Your task to perform on an android device: Go to CNN.com Image 0: 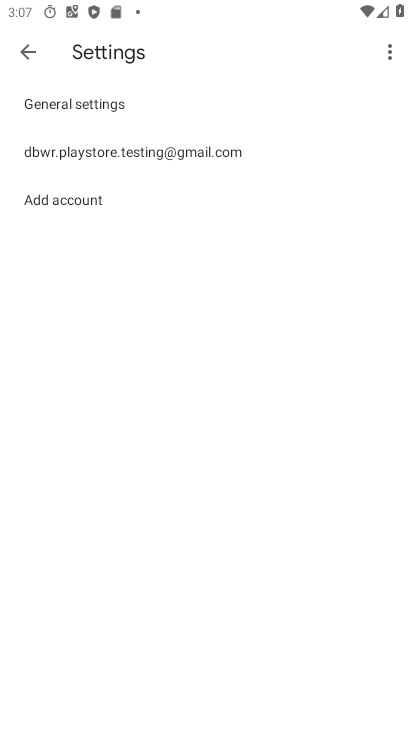
Step 0: press home button
Your task to perform on an android device: Go to CNN.com Image 1: 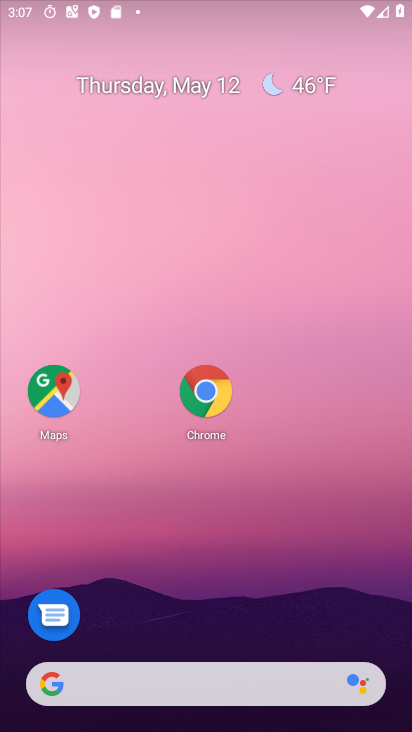
Step 1: drag from (198, 557) to (229, 31)
Your task to perform on an android device: Go to CNN.com Image 2: 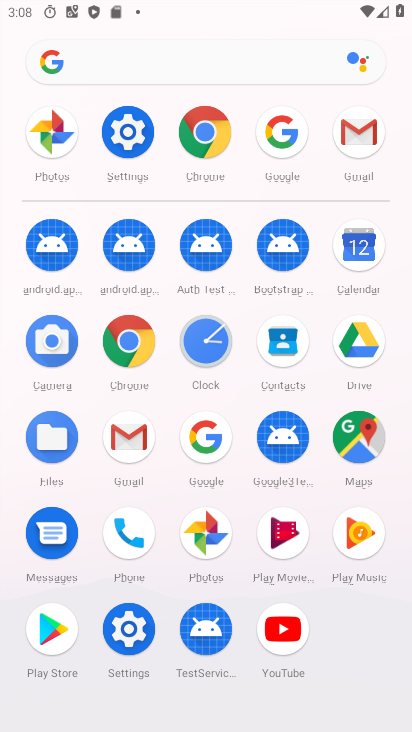
Step 2: click (209, 438)
Your task to perform on an android device: Go to CNN.com Image 3: 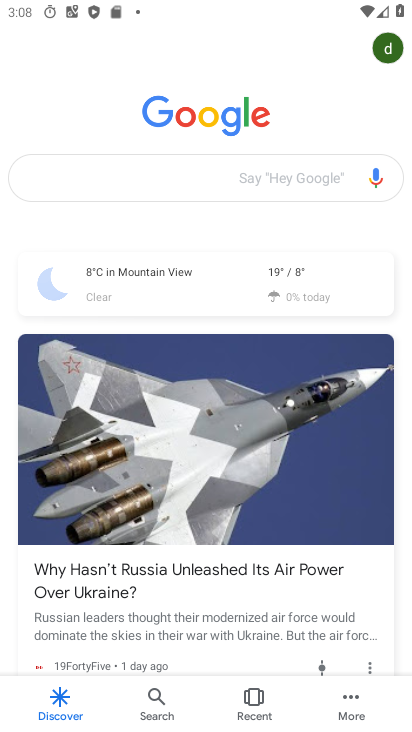
Step 3: click (164, 176)
Your task to perform on an android device: Go to CNN.com Image 4: 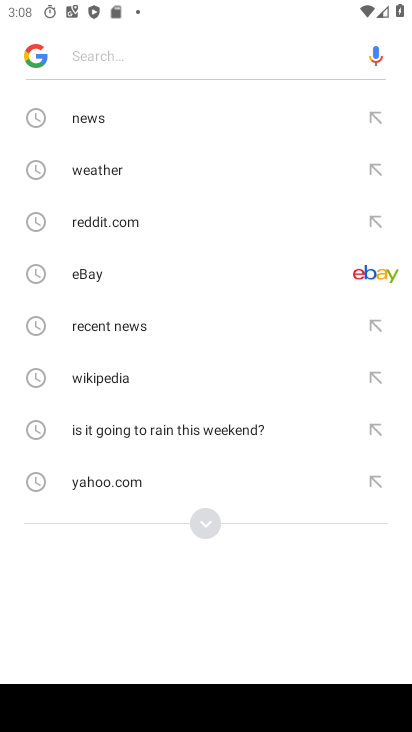
Step 4: type "cnn.com"
Your task to perform on an android device: Go to CNN.com Image 5: 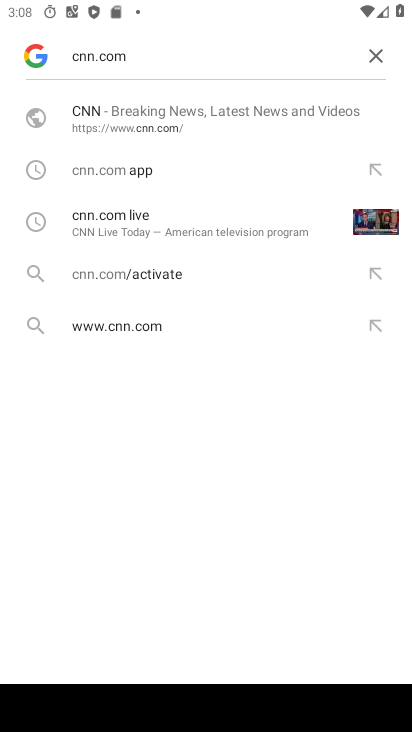
Step 5: click (164, 105)
Your task to perform on an android device: Go to CNN.com Image 6: 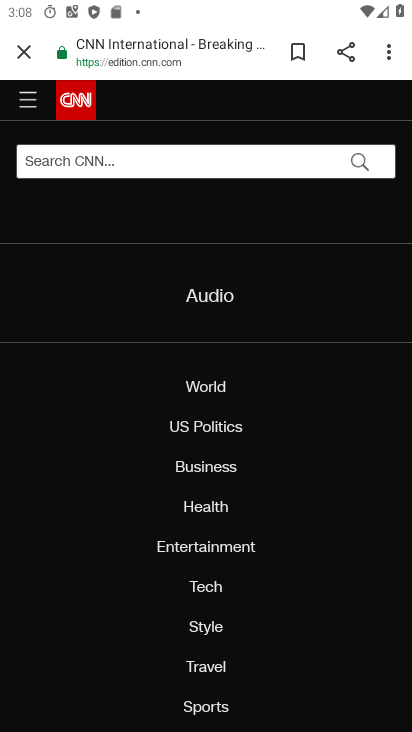
Step 6: task complete